Your task to perform on an android device: Clear the shopping cart on newegg. Search for "usb-a to usb-b" on newegg, select the first entry, add it to the cart, then select checkout. Image 0: 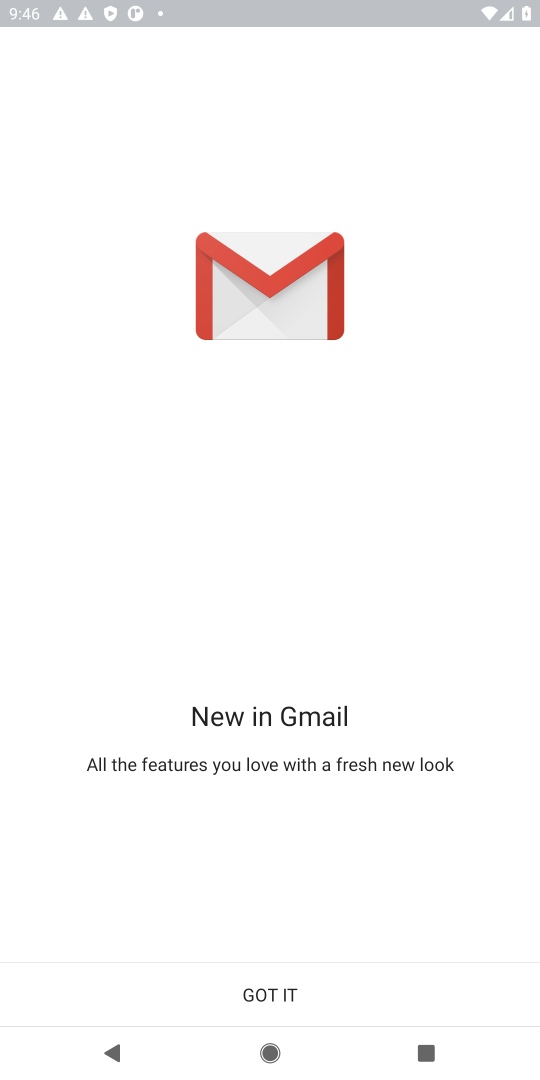
Step 0: press home button
Your task to perform on an android device: Clear the shopping cart on newegg. Search for "usb-a to usb-b" on newegg, select the first entry, add it to the cart, then select checkout. Image 1: 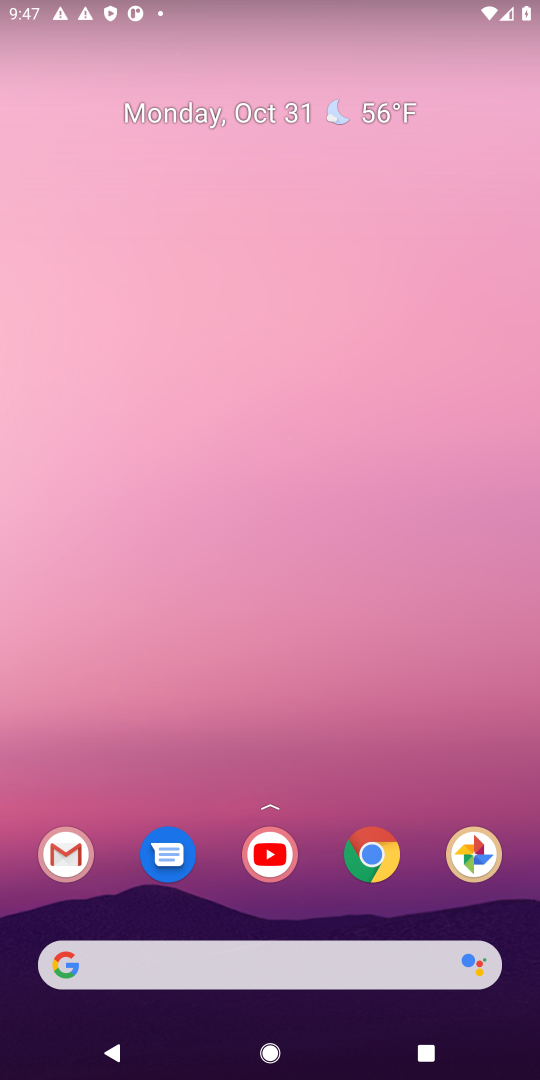
Step 1: click (173, 956)
Your task to perform on an android device: Clear the shopping cart on newegg. Search for "usb-a to usb-b" on newegg, select the first entry, add it to the cart, then select checkout. Image 2: 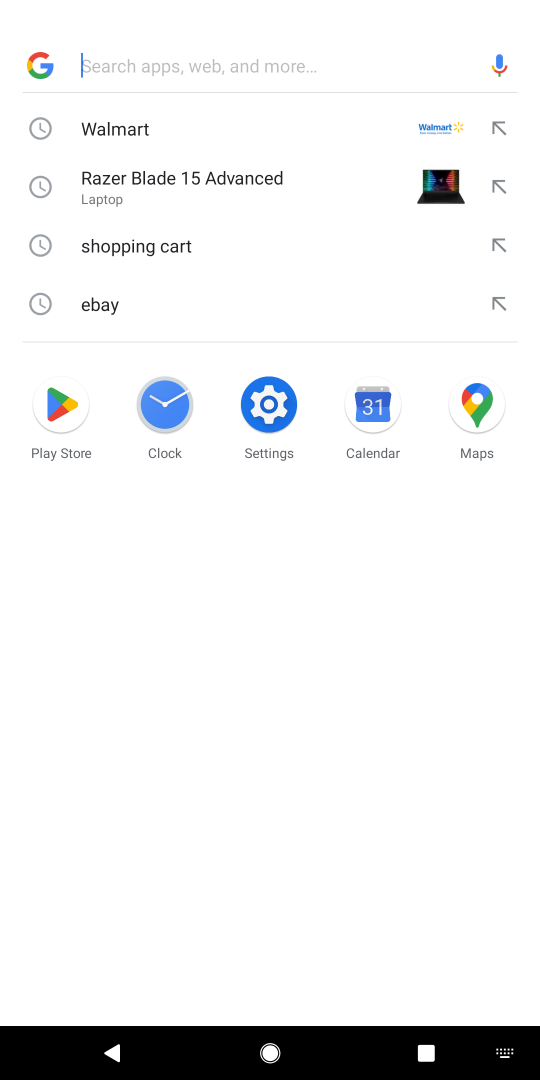
Step 2: type "newegg"
Your task to perform on an android device: Clear the shopping cart on newegg. Search for "usb-a to usb-b" on newegg, select the first entry, add it to the cart, then select checkout. Image 3: 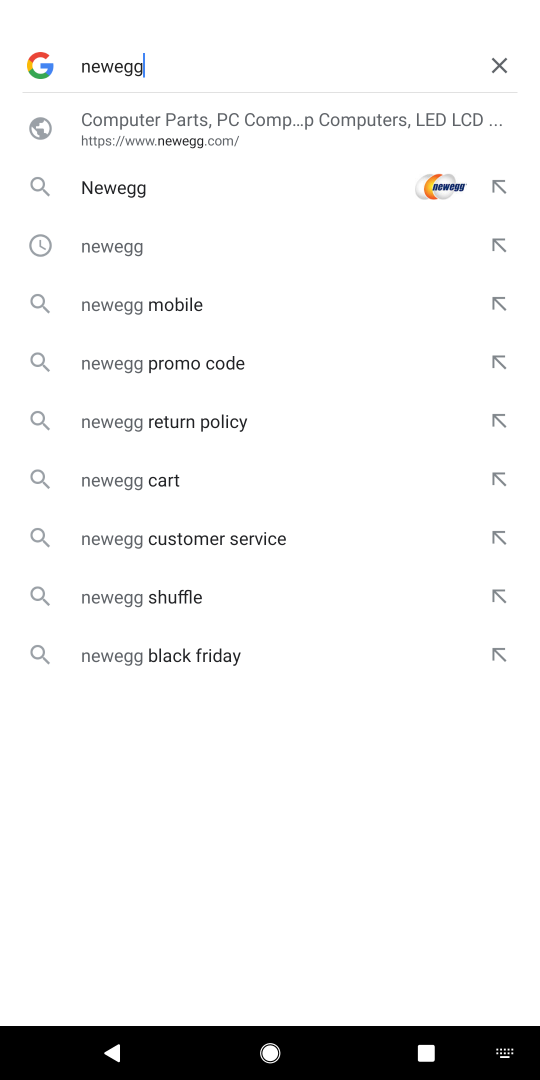
Step 3: click (133, 117)
Your task to perform on an android device: Clear the shopping cart on newegg. Search for "usb-a to usb-b" on newegg, select the first entry, add it to the cart, then select checkout. Image 4: 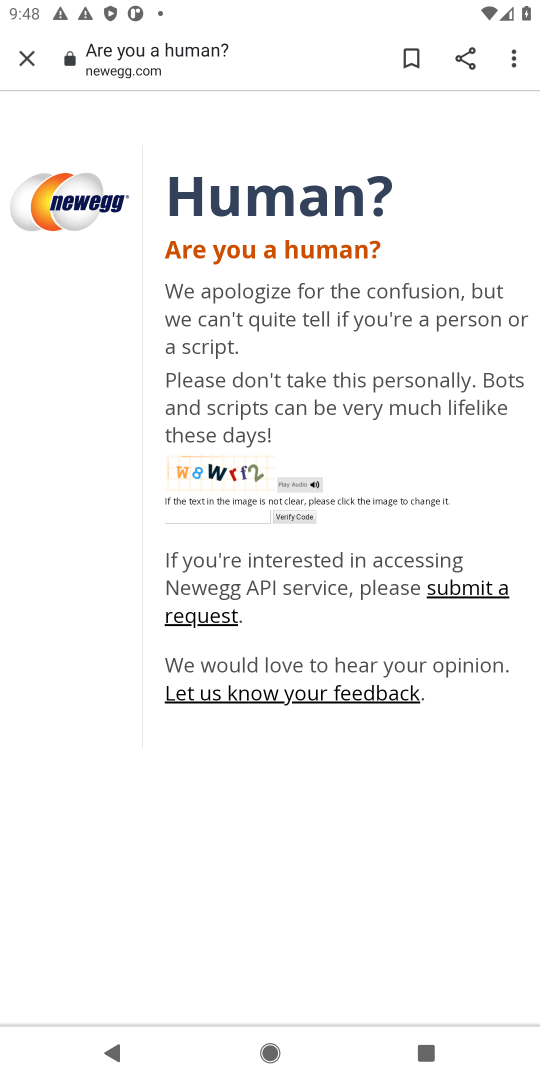
Step 4: task complete